Your task to perform on an android device: What's the weather? Image 0: 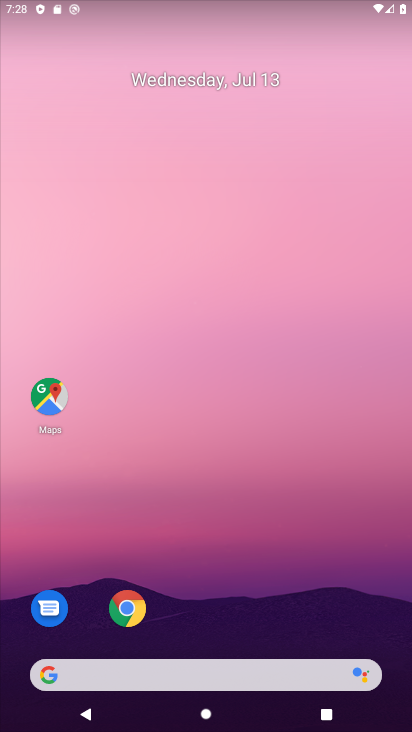
Step 0: click (199, 672)
Your task to perform on an android device: What's the weather? Image 1: 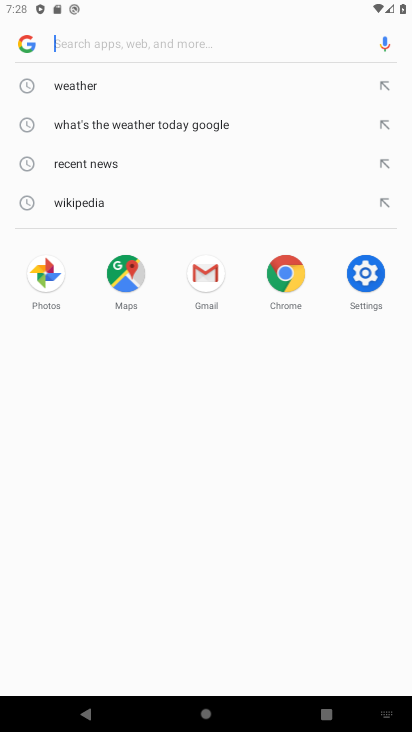
Step 1: click (85, 86)
Your task to perform on an android device: What's the weather? Image 2: 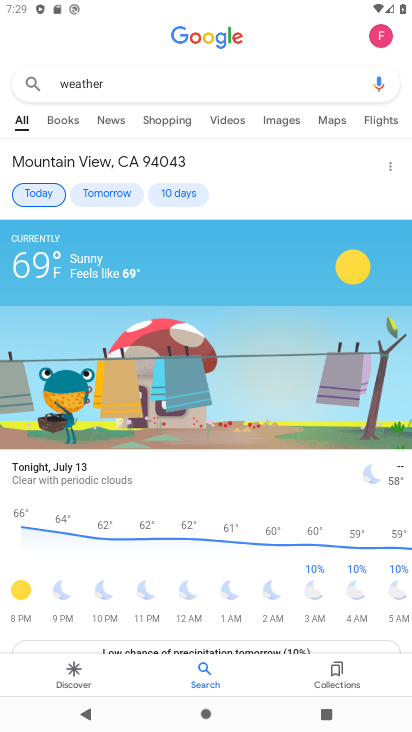
Step 2: task complete